Your task to perform on an android device: What's the price of the Galaxy phone on eBay? Image 0: 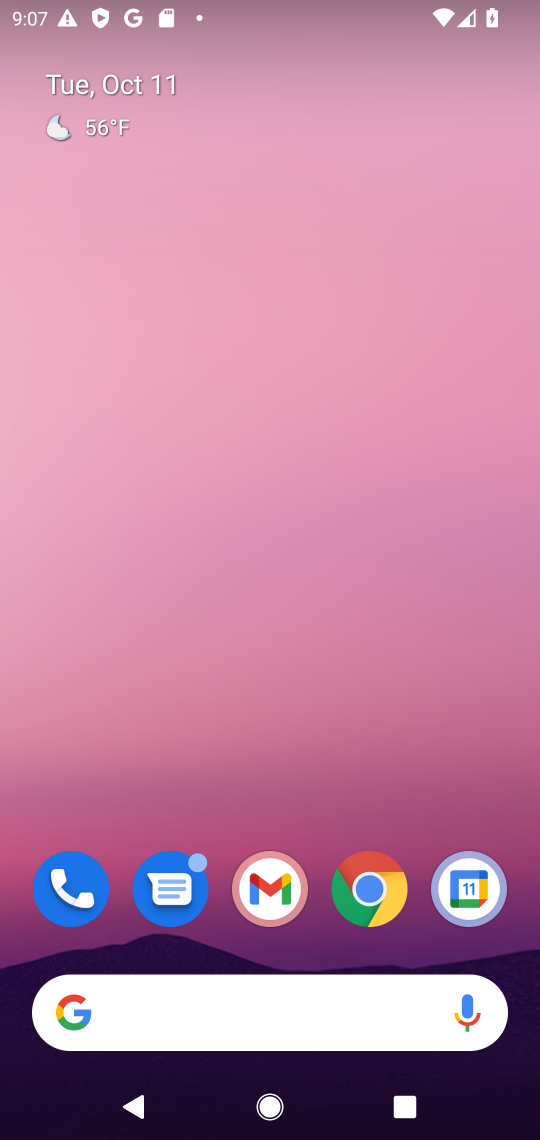
Step 0: click (218, 1019)
Your task to perform on an android device: What's the price of the Galaxy phone on eBay? Image 1: 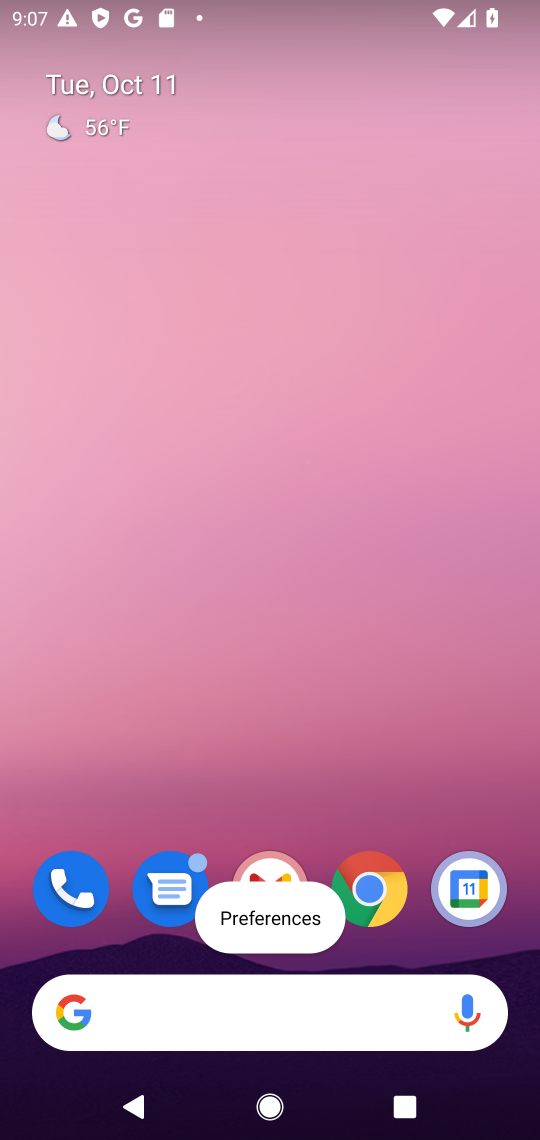
Step 1: click (225, 1007)
Your task to perform on an android device: What's the price of the Galaxy phone on eBay? Image 2: 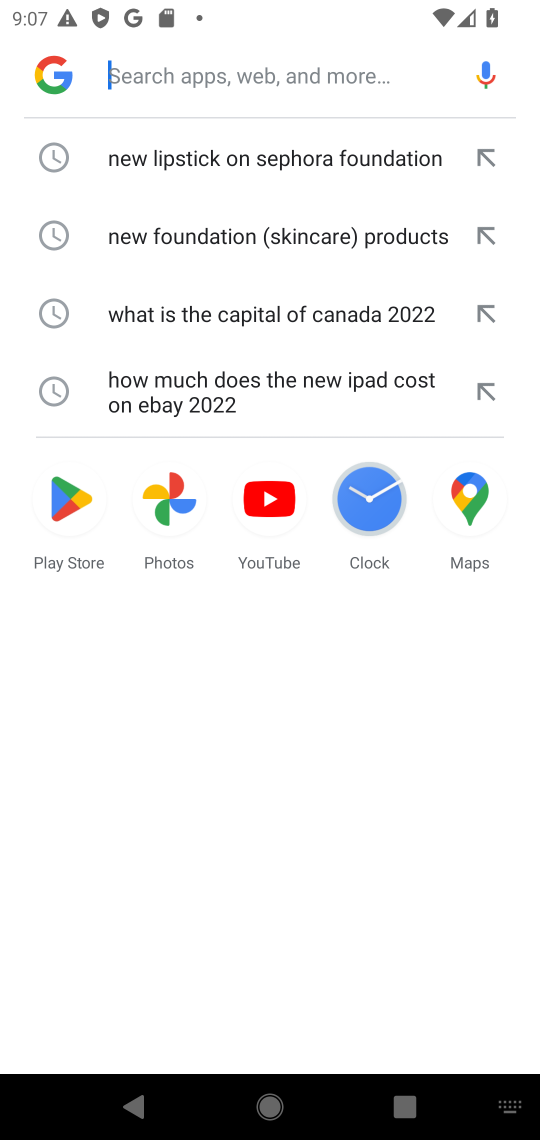
Step 2: click (194, 77)
Your task to perform on an android device: What's the price of the Galaxy phone on eBay? Image 3: 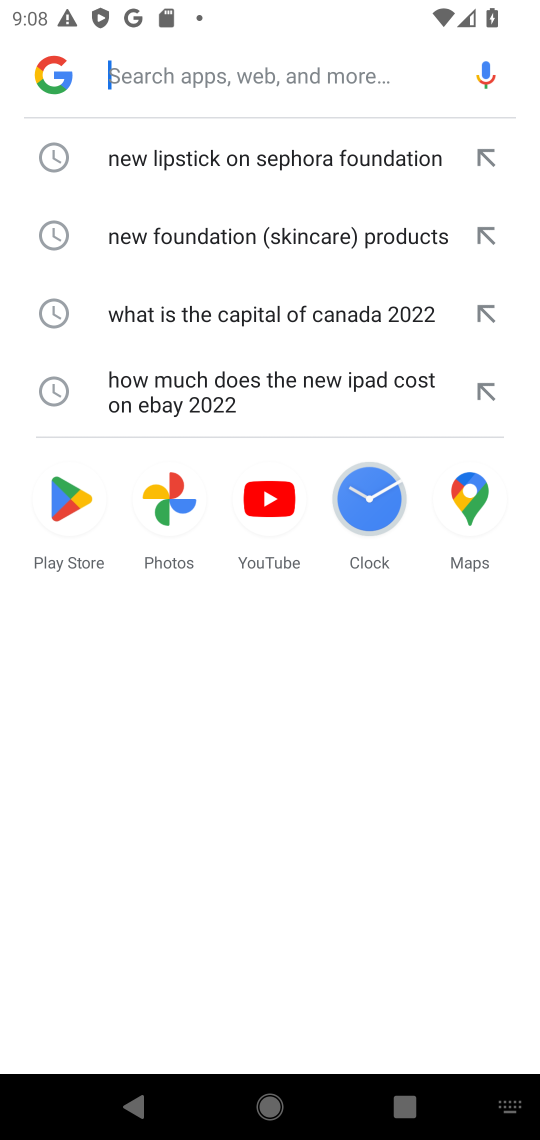
Step 3: type "What's the price of the Galaxy phone on eBay?"
Your task to perform on an android device: What's the price of the Galaxy phone on eBay? Image 4: 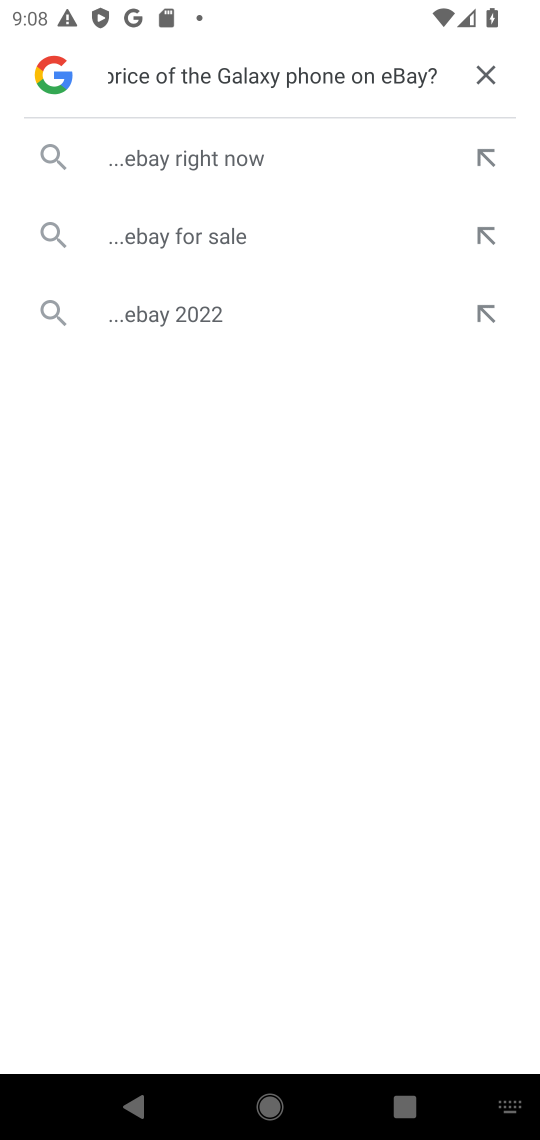
Step 4: click (225, 154)
Your task to perform on an android device: What's the price of the Galaxy phone on eBay? Image 5: 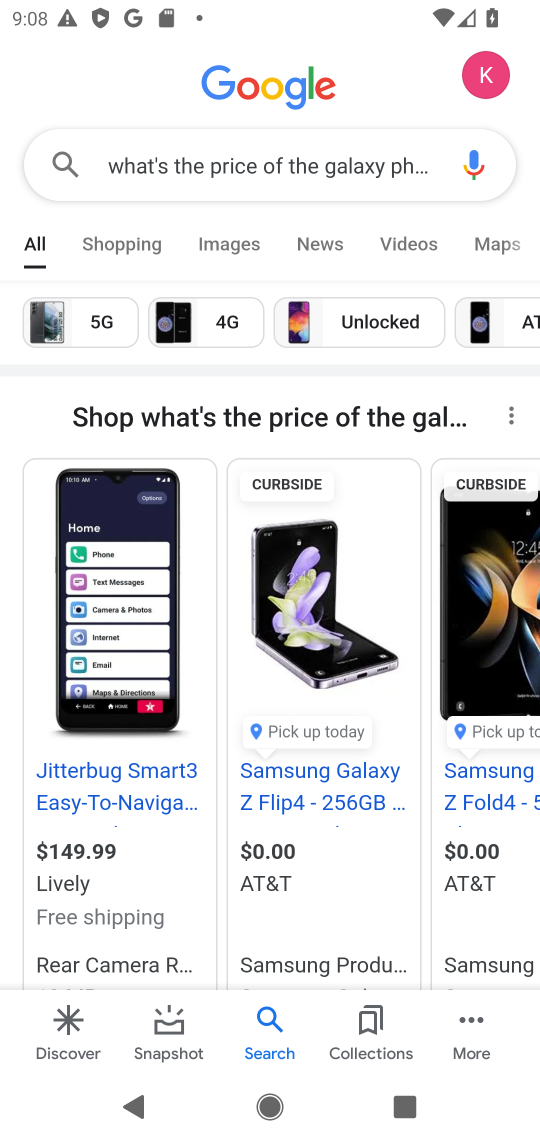
Step 5: task complete